Your task to perform on an android device: Open settings on Google Maps Image 0: 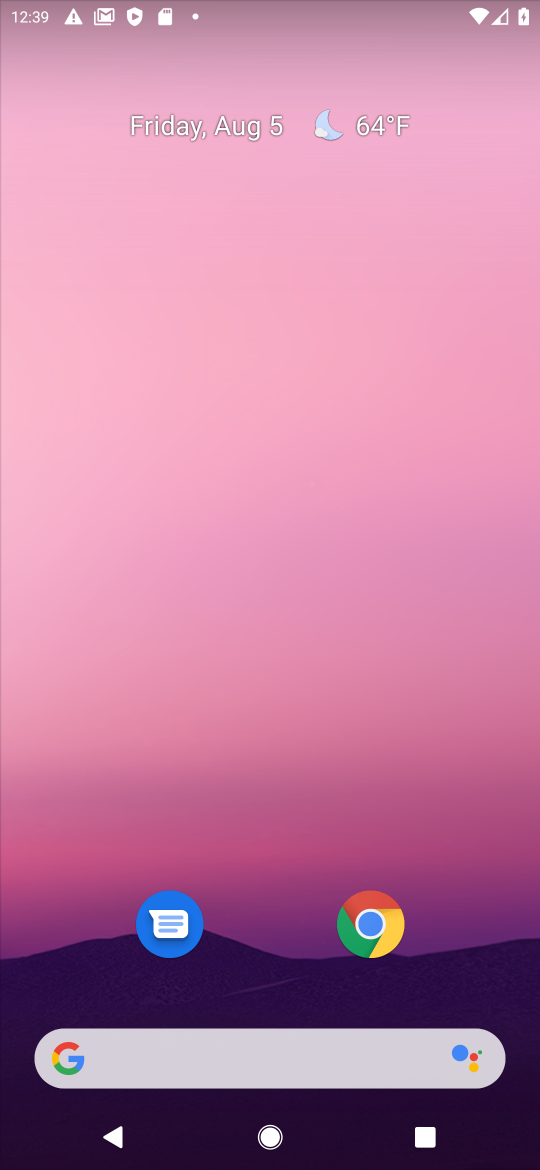
Step 0: press home button
Your task to perform on an android device: Open settings on Google Maps Image 1: 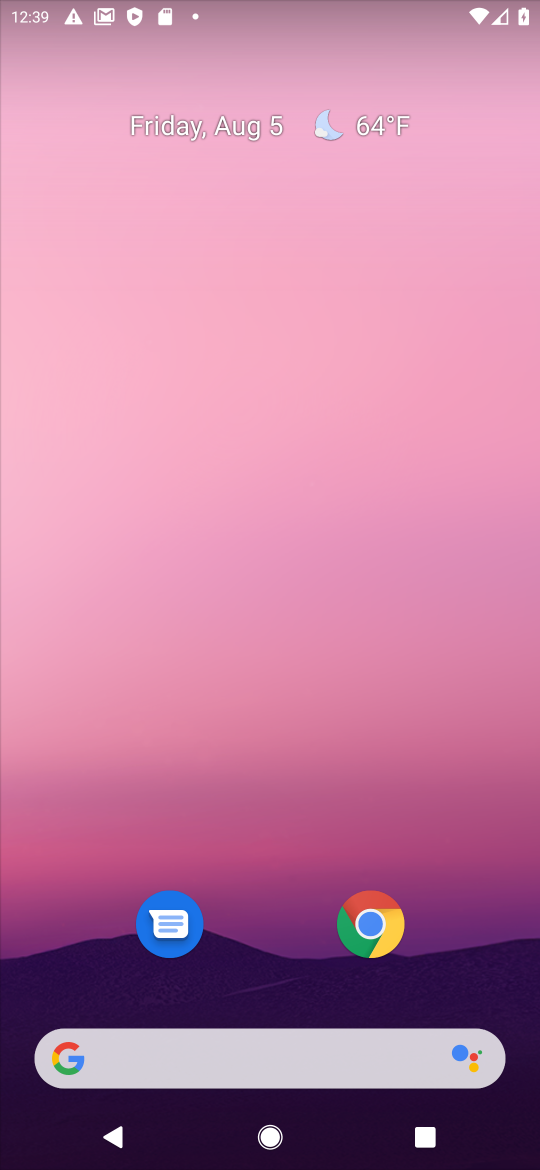
Step 1: drag from (306, 989) to (517, 9)
Your task to perform on an android device: Open settings on Google Maps Image 2: 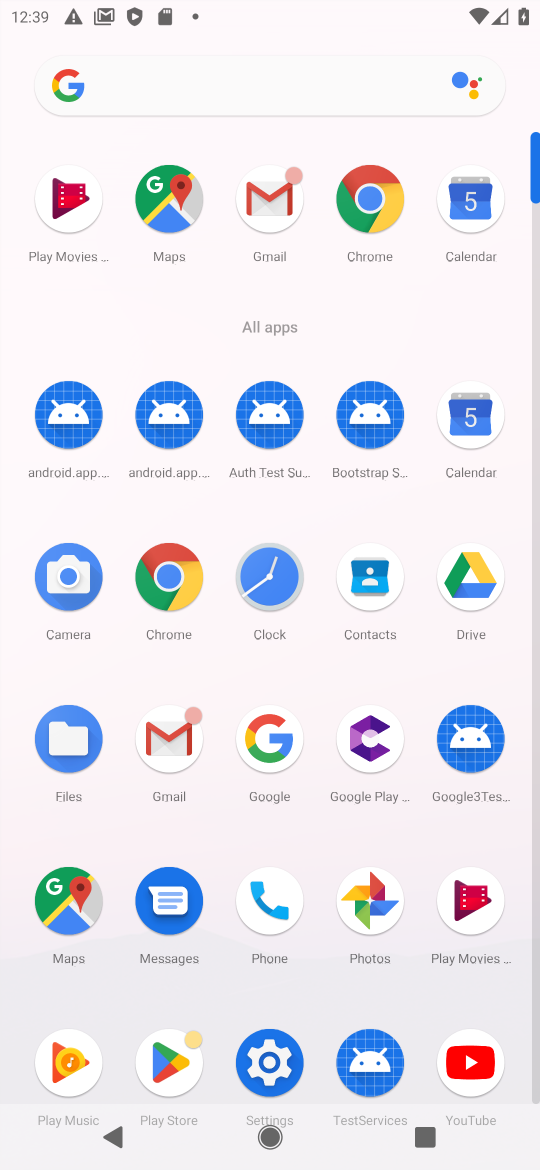
Step 2: click (171, 204)
Your task to perform on an android device: Open settings on Google Maps Image 3: 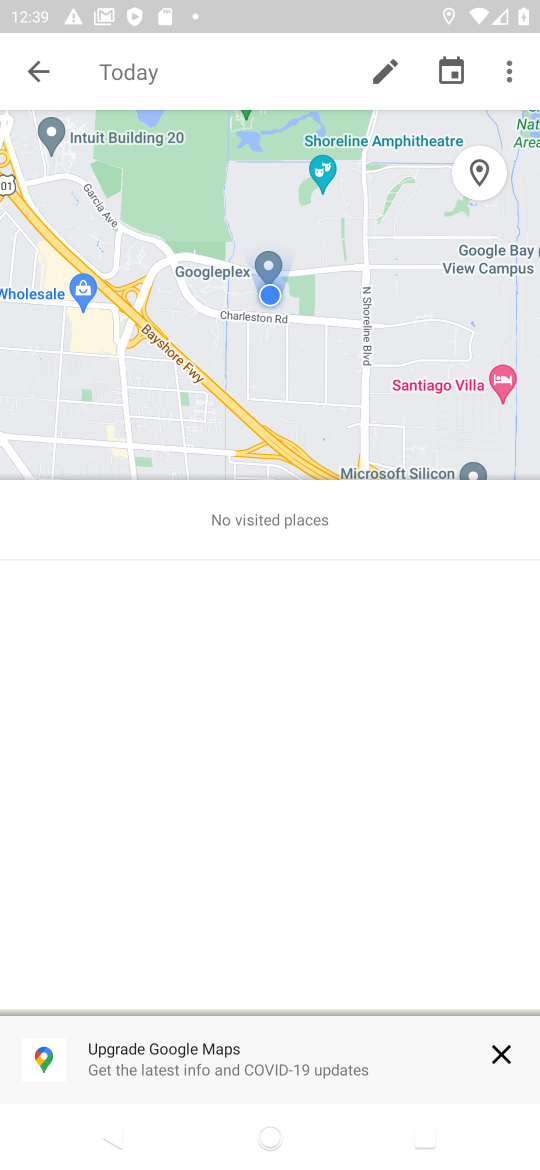
Step 3: click (38, 75)
Your task to perform on an android device: Open settings on Google Maps Image 4: 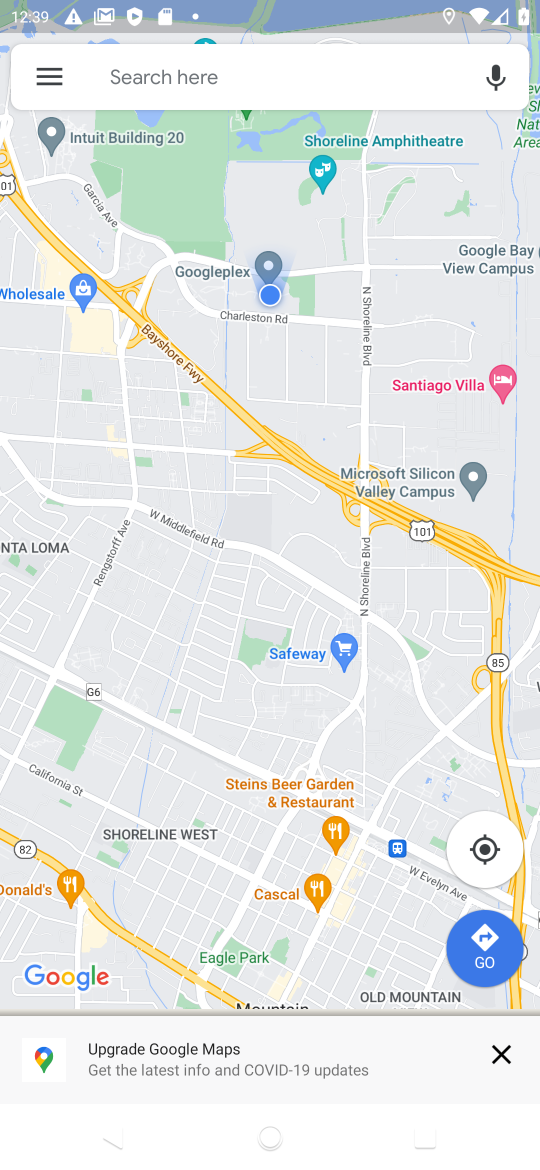
Step 4: click (58, 79)
Your task to perform on an android device: Open settings on Google Maps Image 5: 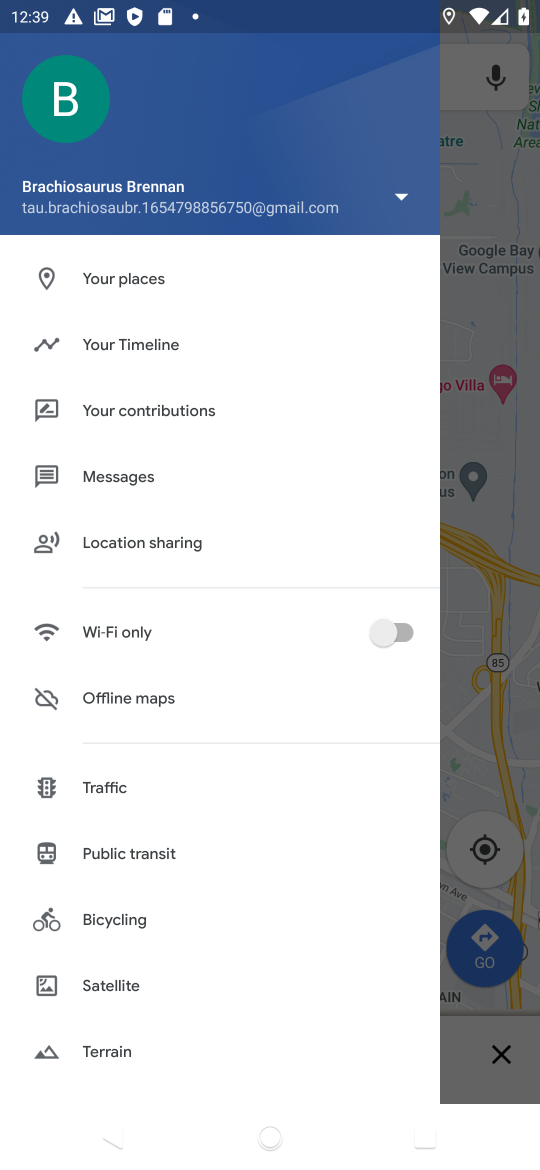
Step 5: drag from (259, 990) to (261, 262)
Your task to perform on an android device: Open settings on Google Maps Image 6: 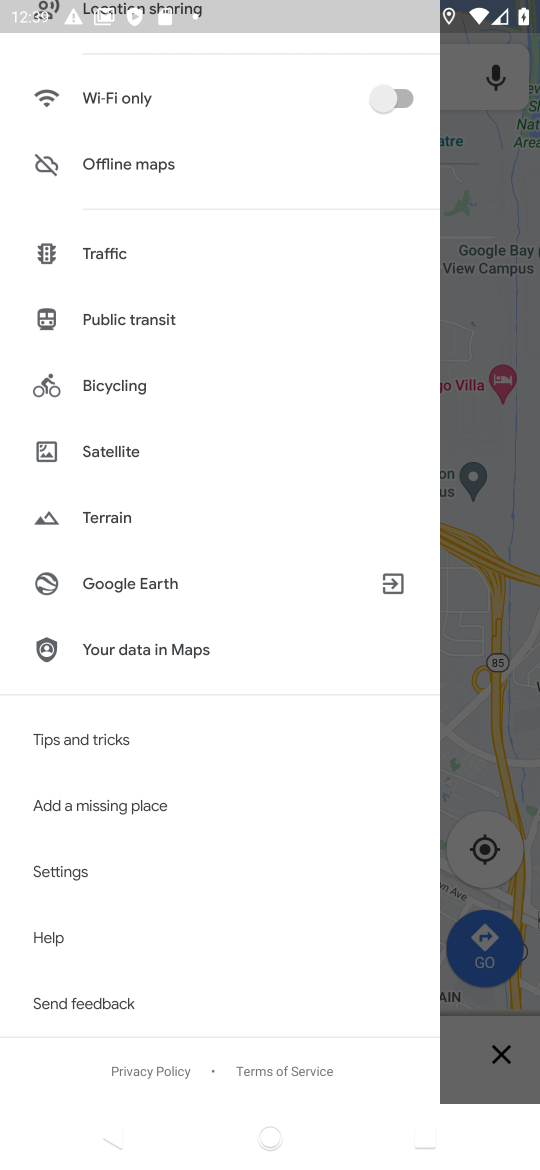
Step 6: click (57, 863)
Your task to perform on an android device: Open settings on Google Maps Image 7: 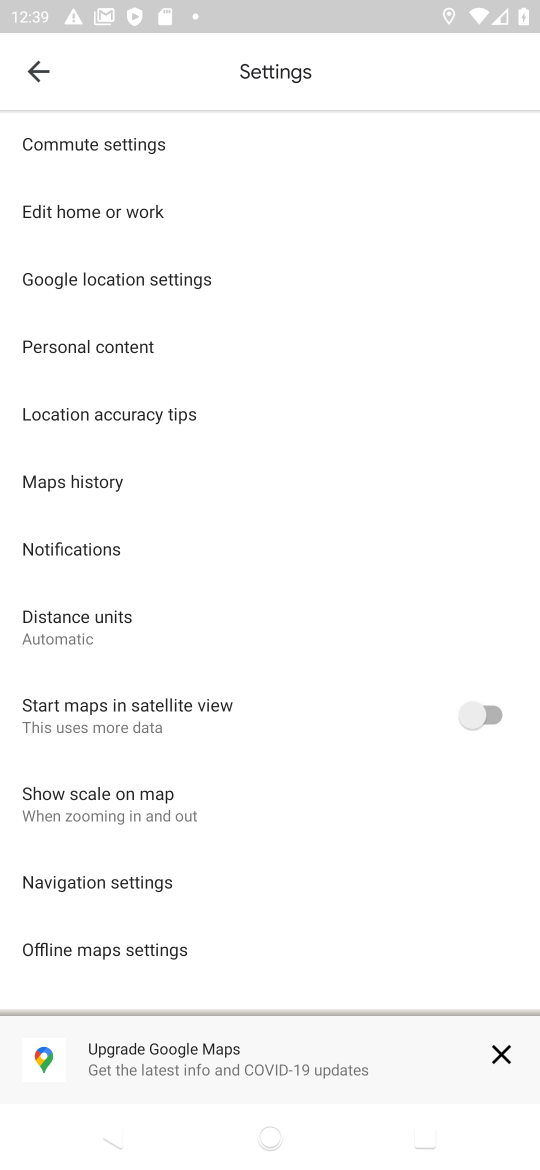
Step 7: task complete